Your task to perform on an android device: allow cookies in the chrome app Image 0: 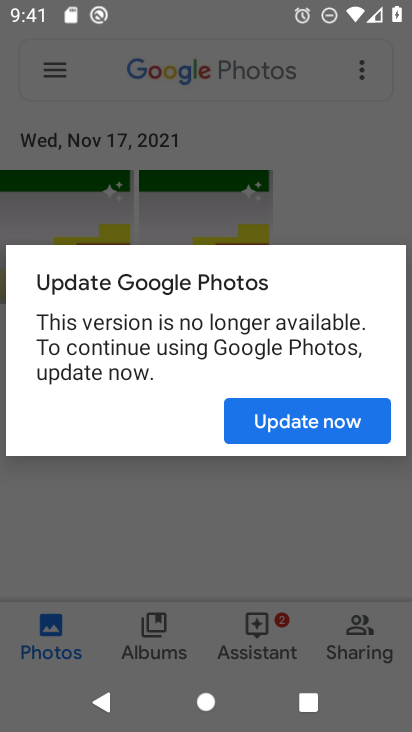
Step 0: press home button
Your task to perform on an android device: allow cookies in the chrome app Image 1: 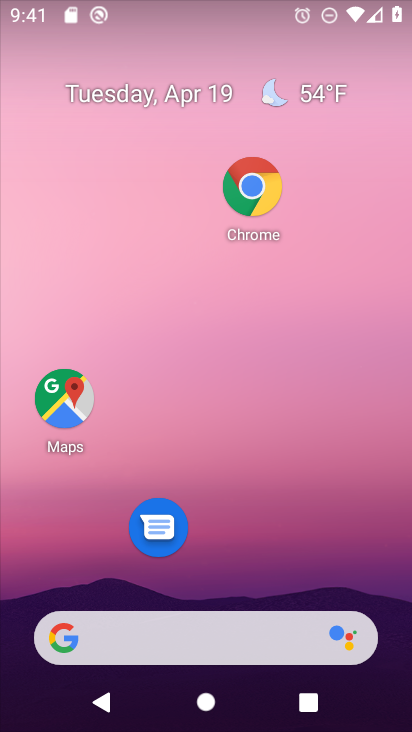
Step 1: drag from (279, 381) to (316, 147)
Your task to perform on an android device: allow cookies in the chrome app Image 2: 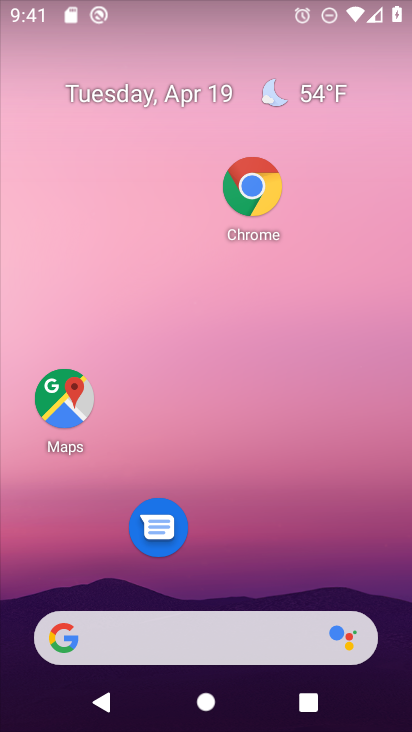
Step 2: drag from (225, 551) to (297, 191)
Your task to perform on an android device: allow cookies in the chrome app Image 3: 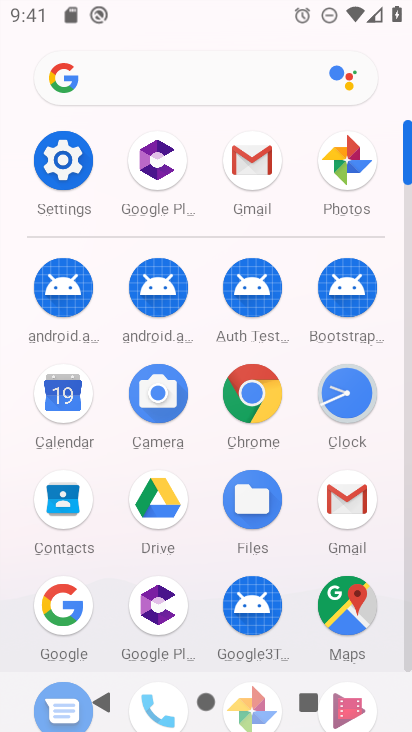
Step 3: click (257, 393)
Your task to perform on an android device: allow cookies in the chrome app Image 4: 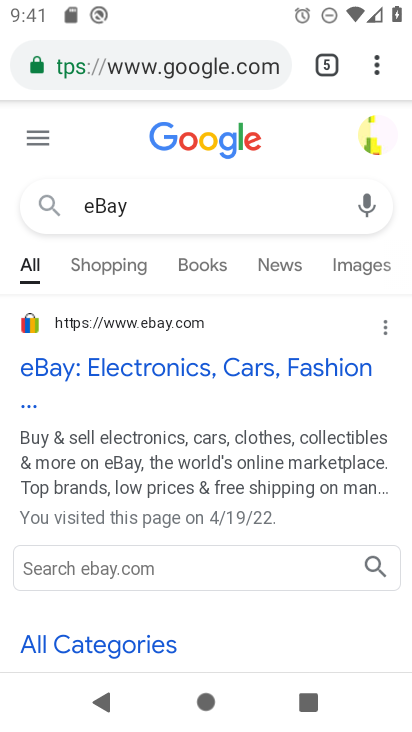
Step 4: click (379, 60)
Your task to perform on an android device: allow cookies in the chrome app Image 5: 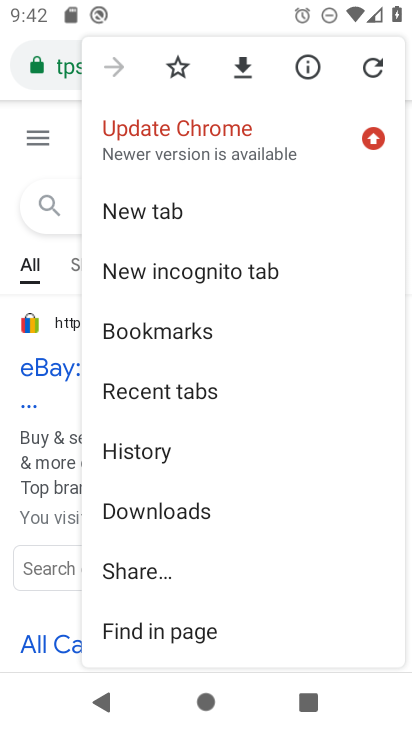
Step 5: drag from (253, 602) to (283, 253)
Your task to perform on an android device: allow cookies in the chrome app Image 6: 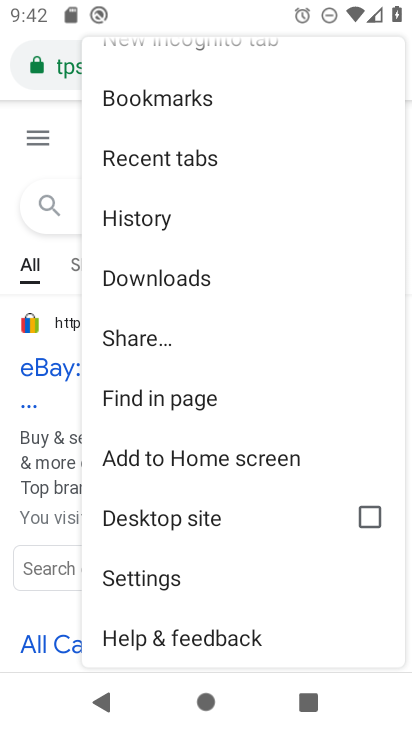
Step 6: click (156, 576)
Your task to perform on an android device: allow cookies in the chrome app Image 7: 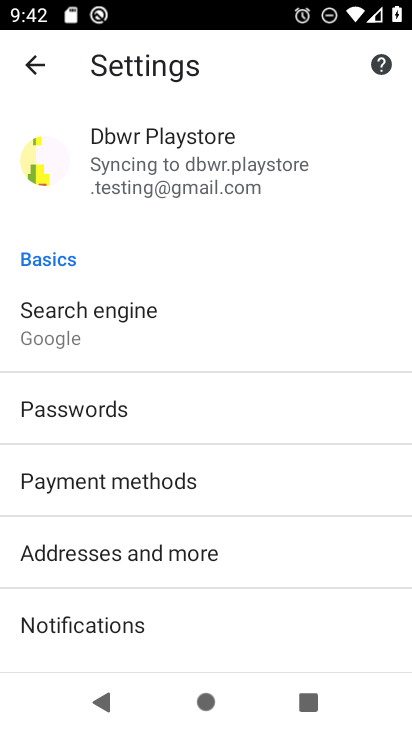
Step 7: drag from (229, 602) to (272, 201)
Your task to perform on an android device: allow cookies in the chrome app Image 8: 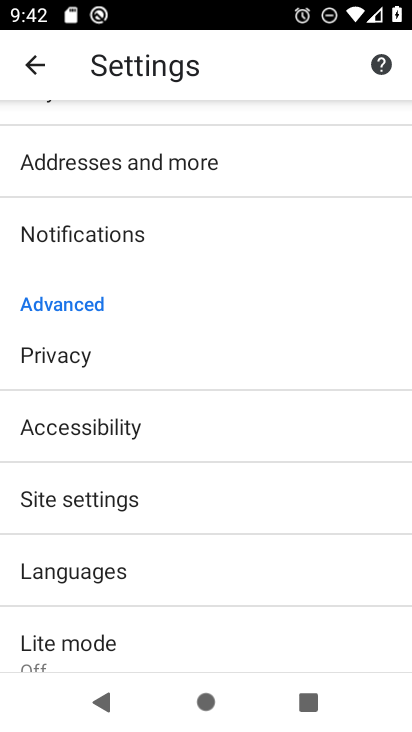
Step 8: click (125, 501)
Your task to perform on an android device: allow cookies in the chrome app Image 9: 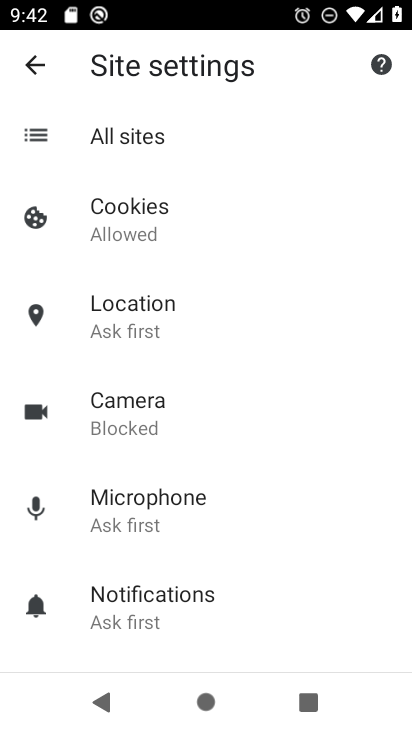
Step 9: click (206, 216)
Your task to perform on an android device: allow cookies in the chrome app Image 10: 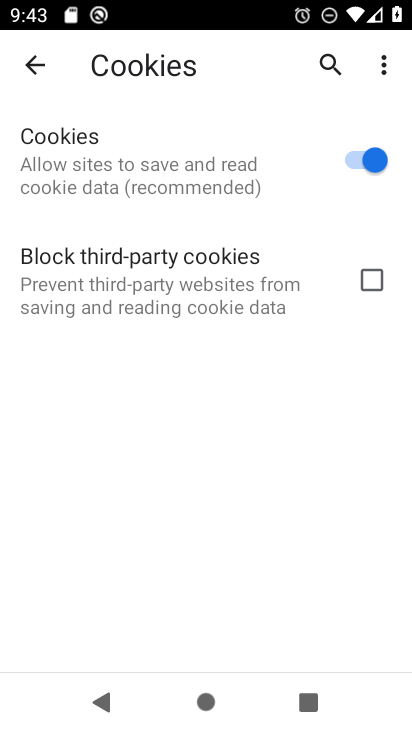
Step 10: task complete